Your task to perform on an android device: toggle sleep mode Image 0: 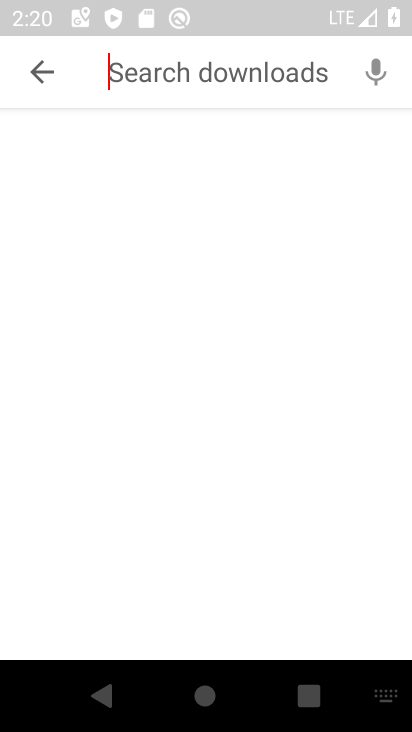
Step 0: press home button
Your task to perform on an android device: toggle sleep mode Image 1: 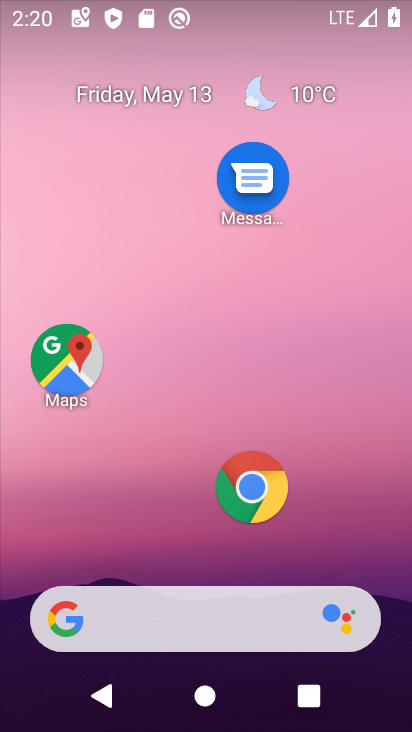
Step 1: drag from (211, 565) to (209, 173)
Your task to perform on an android device: toggle sleep mode Image 2: 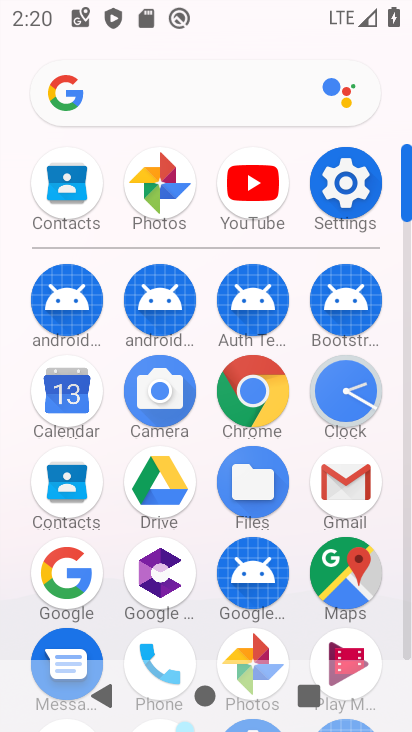
Step 2: click (344, 178)
Your task to perform on an android device: toggle sleep mode Image 3: 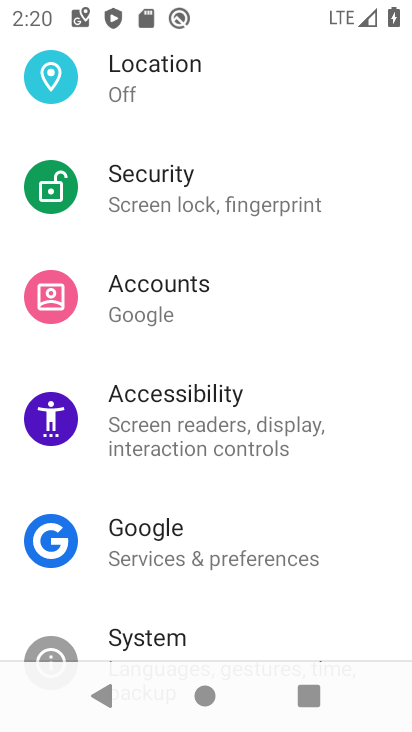
Step 3: drag from (227, 154) to (262, 567)
Your task to perform on an android device: toggle sleep mode Image 4: 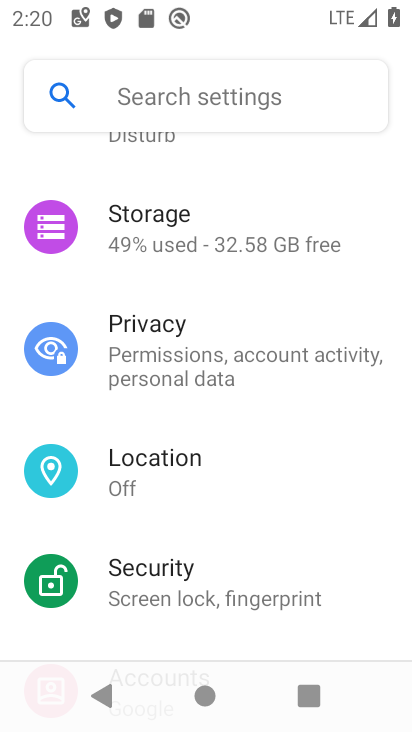
Step 4: drag from (253, 199) to (288, 588)
Your task to perform on an android device: toggle sleep mode Image 5: 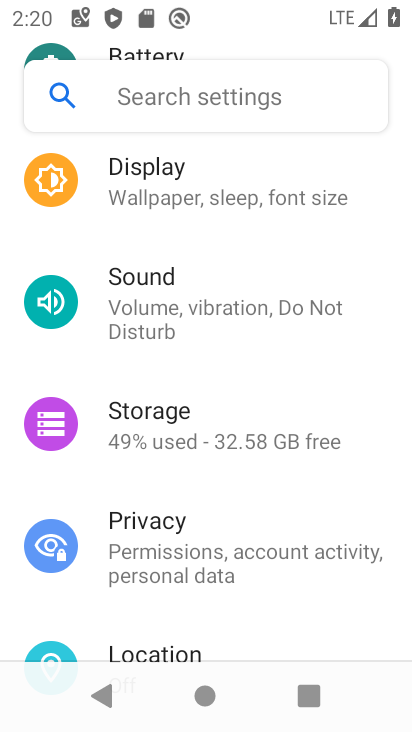
Step 5: click (238, 178)
Your task to perform on an android device: toggle sleep mode Image 6: 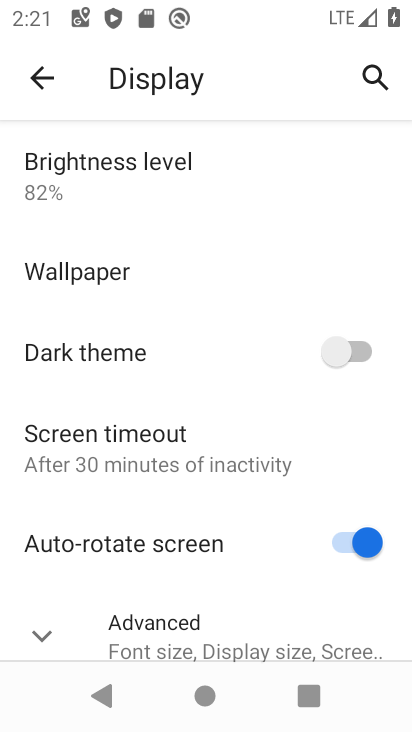
Step 6: task complete